Your task to perform on an android device: Show me recent news Image 0: 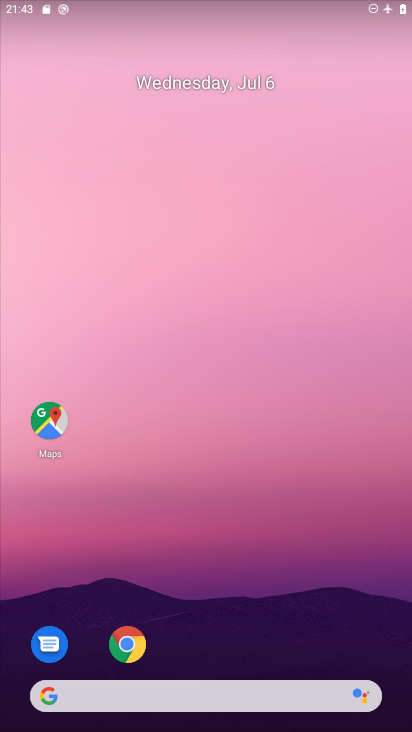
Step 0: drag from (233, 622) to (223, 146)
Your task to perform on an android device: Show me recent news Image 1: 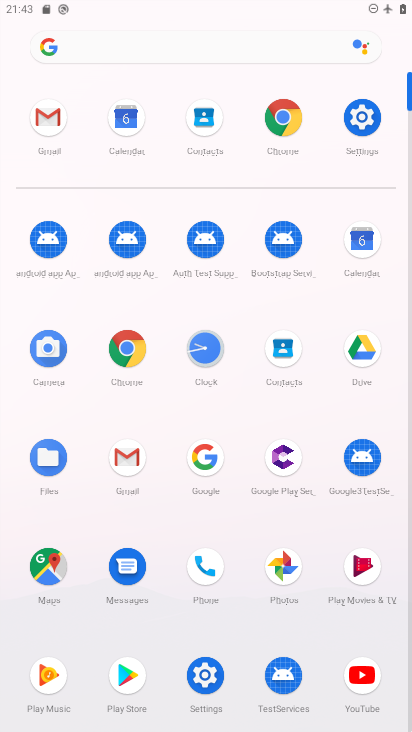
Step 1: click (198, 452)
Your task to perform on an android device: Show me recent news Image 2: 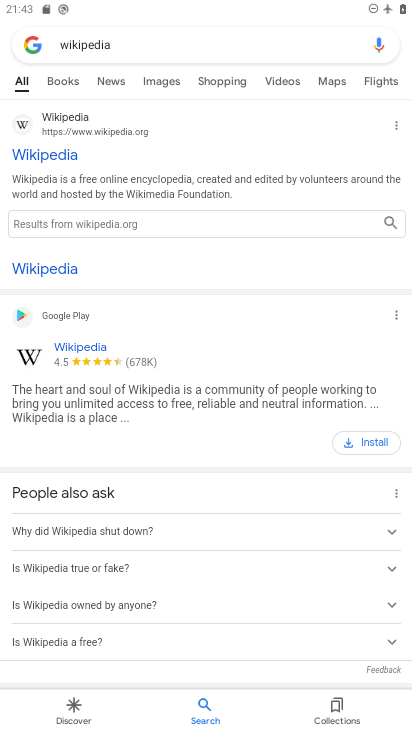
Step 2: click (187, 32)
Your task to perform on an android device: Show me recent news Image 3: 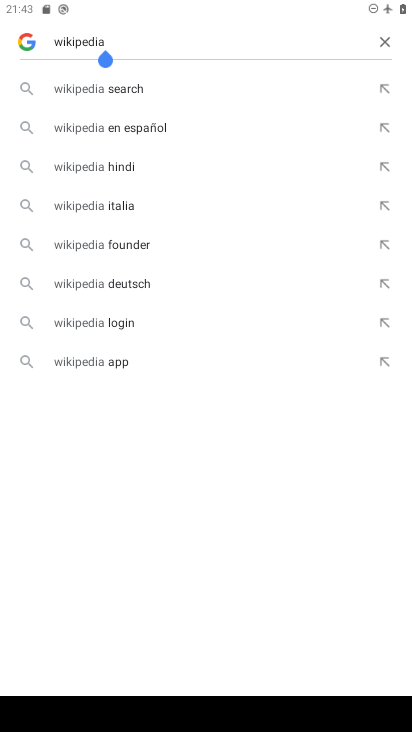
Step 3: click (379, 47)
Your task to perform on an android device: Show me recent news Image 4: 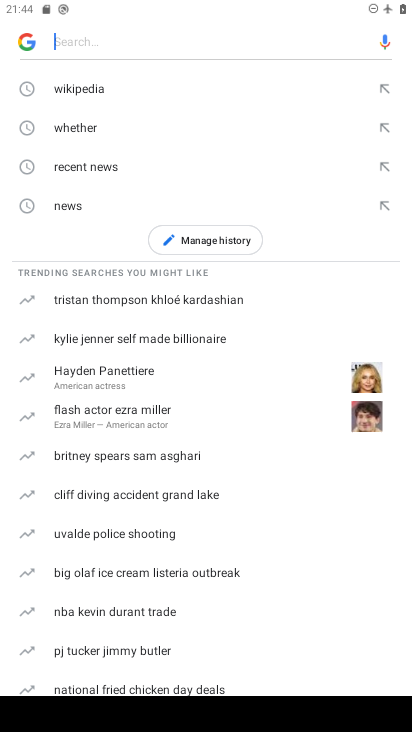
Step 4: click (90, 169)
Your task to perform on an android device: Show me recent news Image 5: 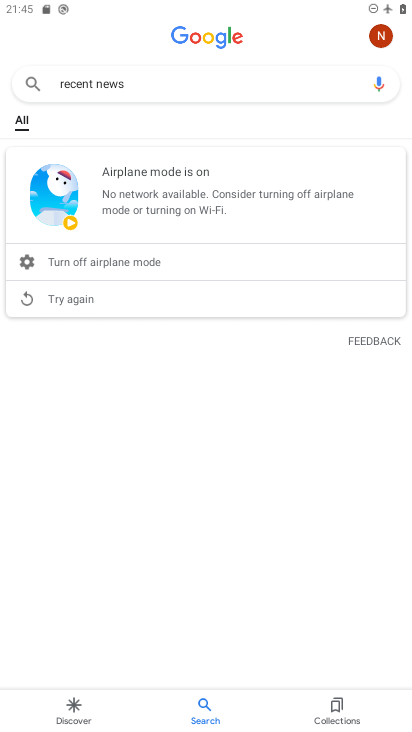
Step 5: task complete